Your task to perform on an android device: check battery use Image 0: 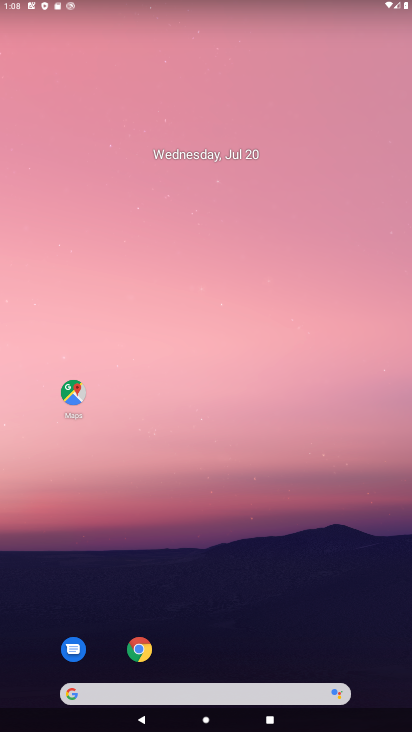
Step 0: press home button
Your task to perform on an android device: check battery use Image 1: 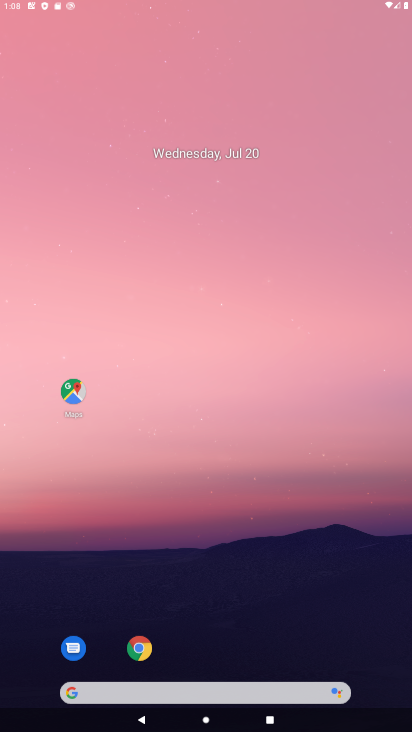
Step 1: drag from (239, 603) to (268, 116)
Your task to perform on an android device: check battery use Image 2: 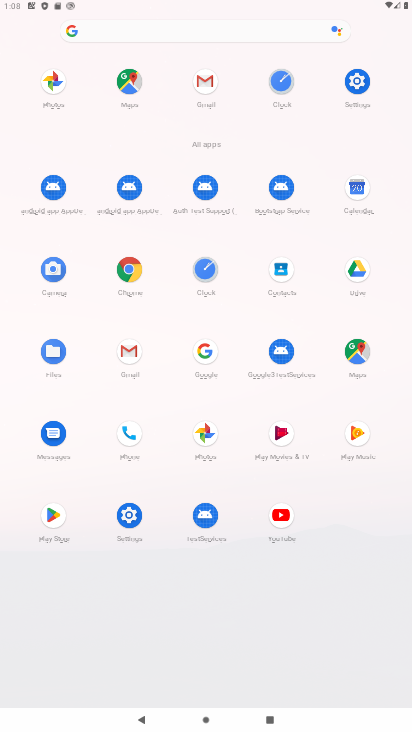
Step 2: click (334, 92)
Your task to perform on an android device: check battery use Image 3: 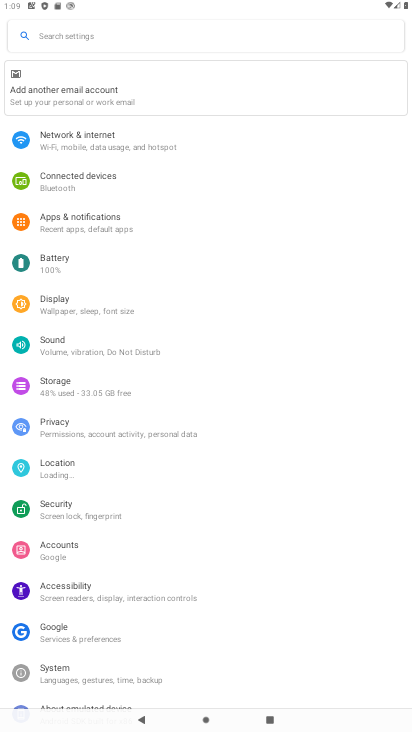
Step 3: click (46, 264)
Your task to perform on an android device: check battery use Image 4: 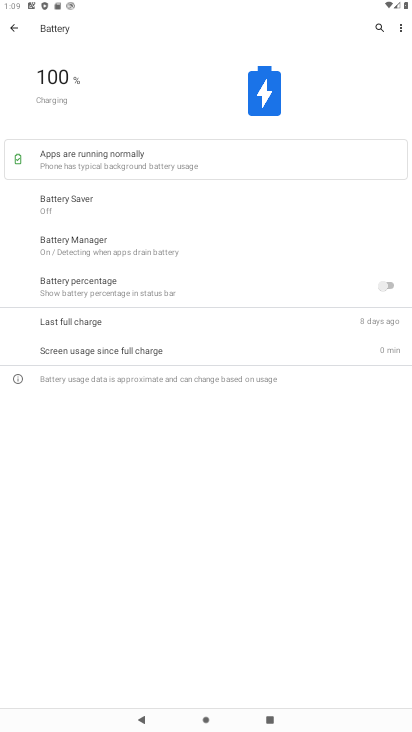
Step 4: task complete